Your task to perform on an android device: See recent photos Image 0: 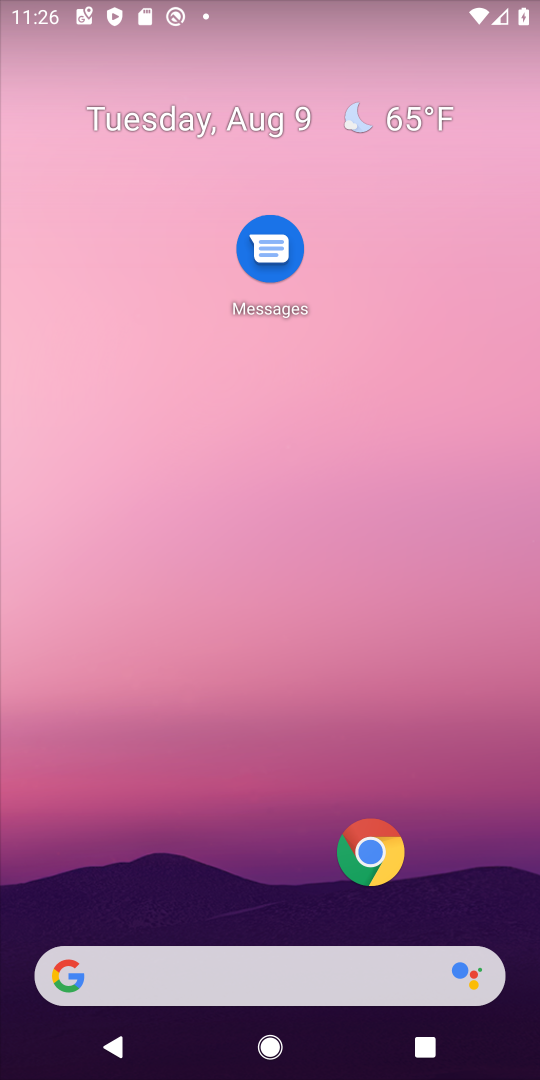
Step 0: drag from (153, 884) to (37, 208)
Your task to perform on an android device: See recent photos Image 1: 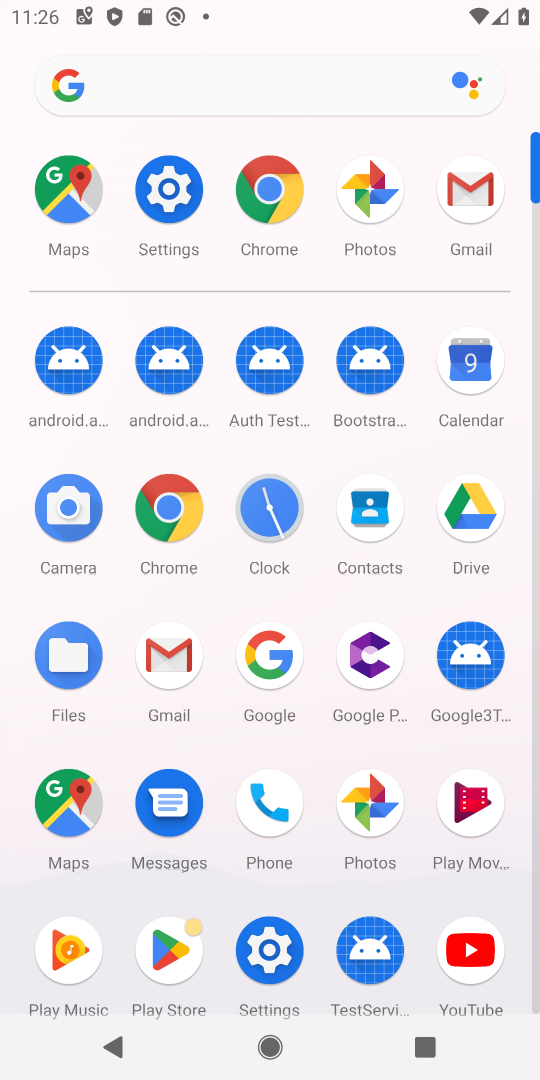
Step 1: click (382, 198)
Your task to perform on an android device: See recent photos Image 2: 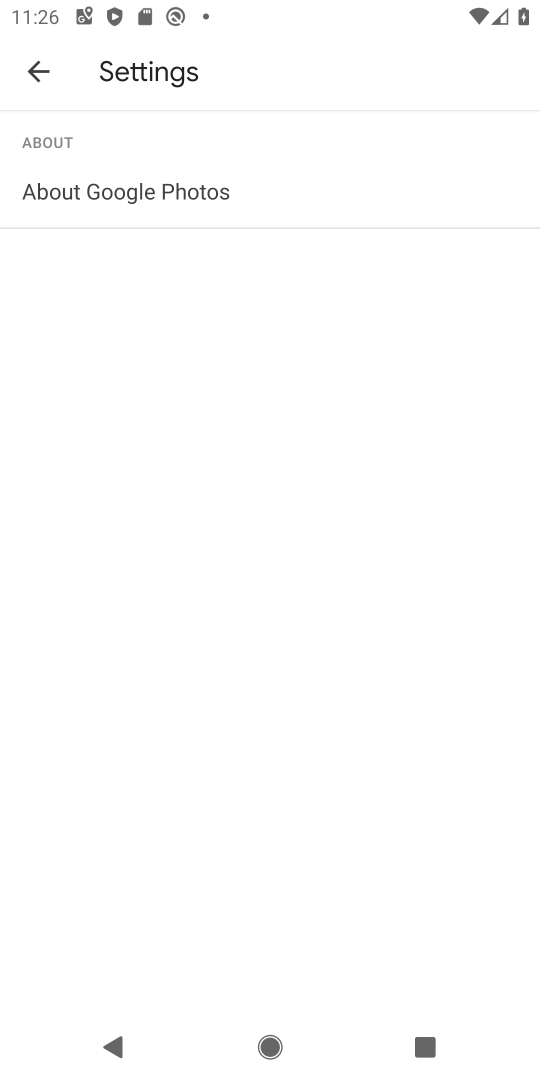
Step 2: click (56, 79)
Your task to perform on an android device: See recent photos Image 3: 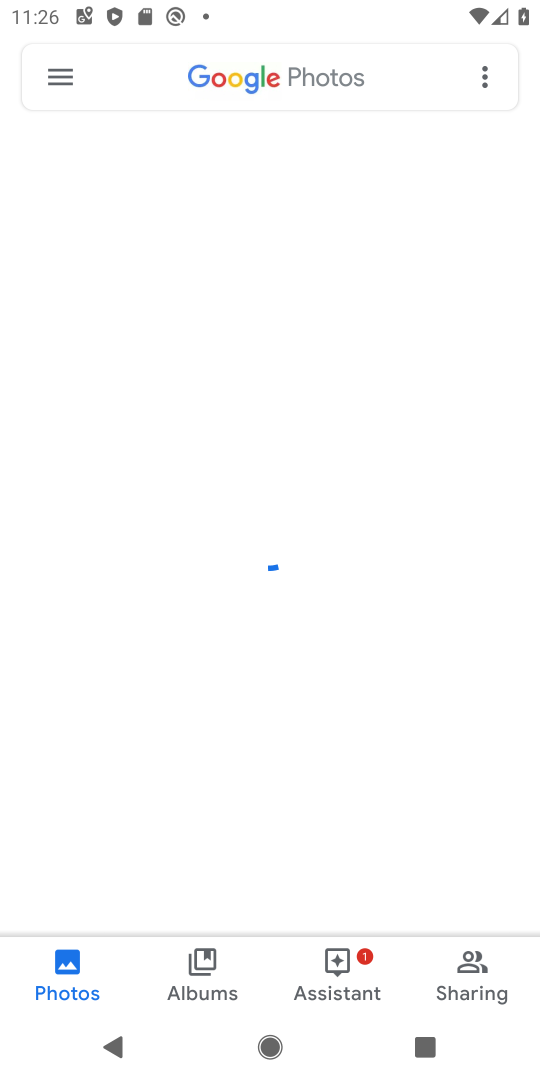
Step 3: click (38, 75)
Your task to perform on an android device: See recent photos Image 4: 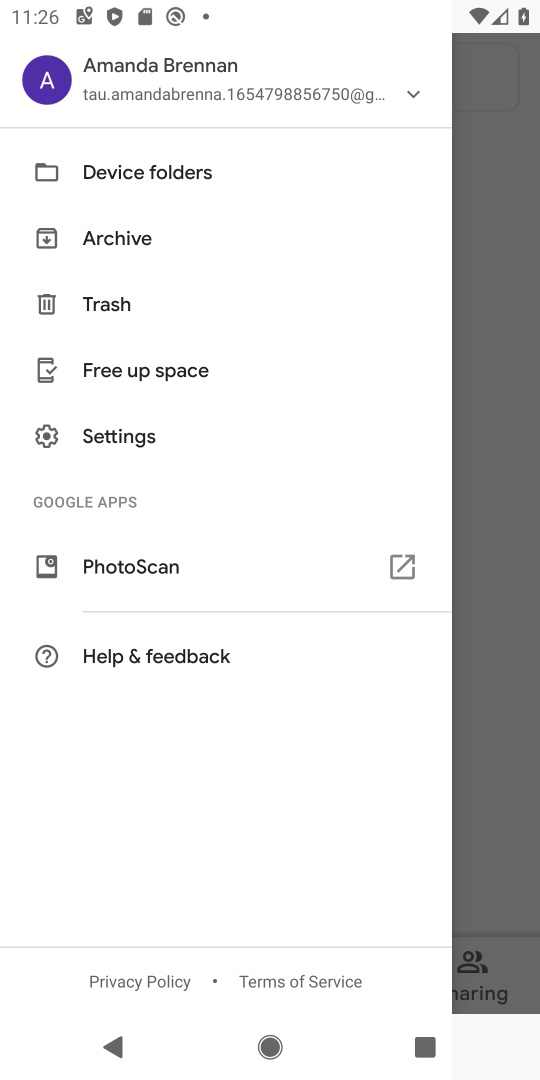
Step 4: click (38, 75)
Your task to perform on an android device: See recent photos Image 5: 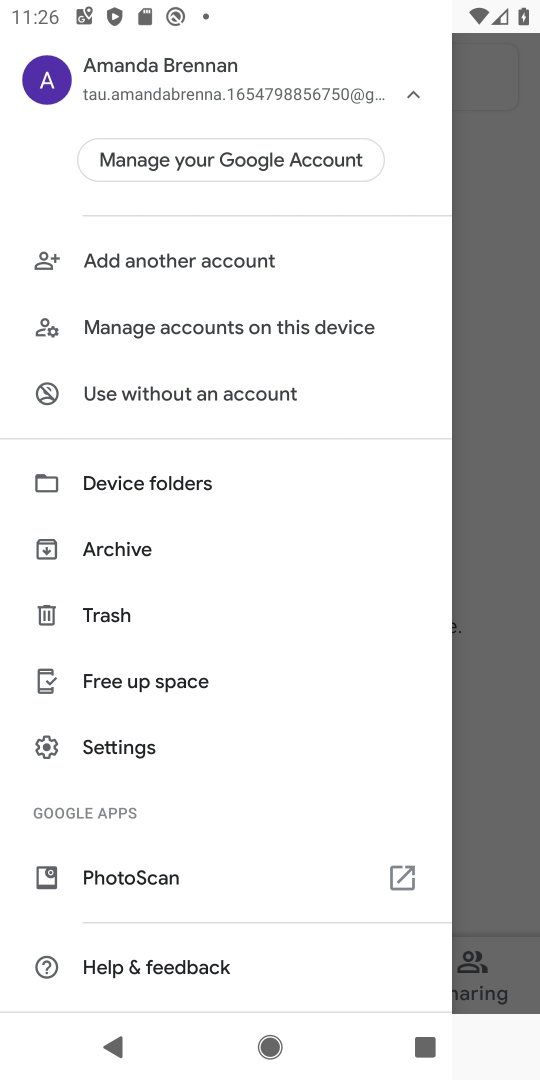
Step 5: click (465, 305)
Your task to perform on an android device: See recent photos Image 6: 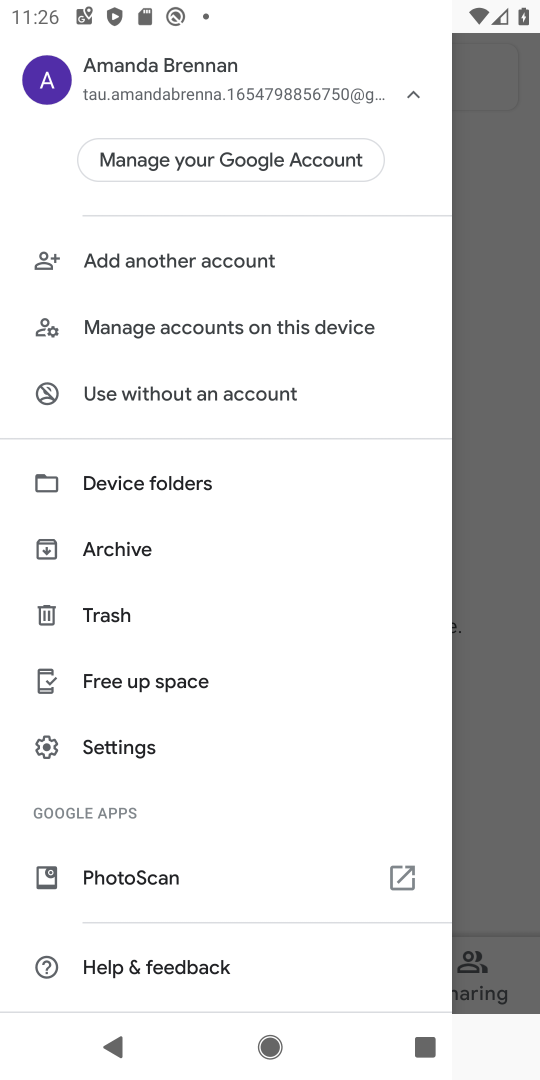
Step 6: click (465, 305)
Your task to perform on an android device: See recent photos Image 7: 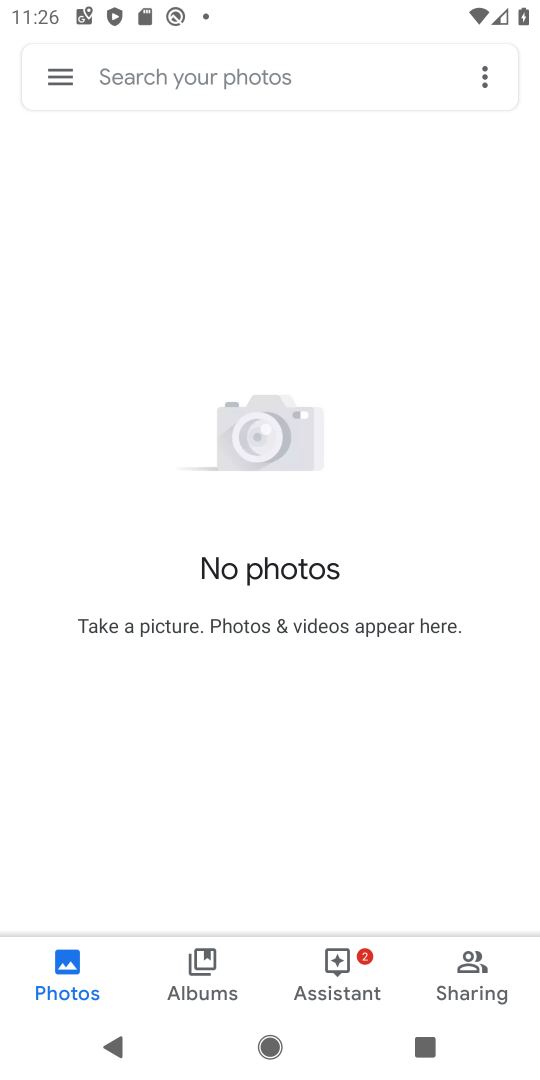
Step 7: click (465, 305)
Your task to perform on an android device: See recent photos Image 8: 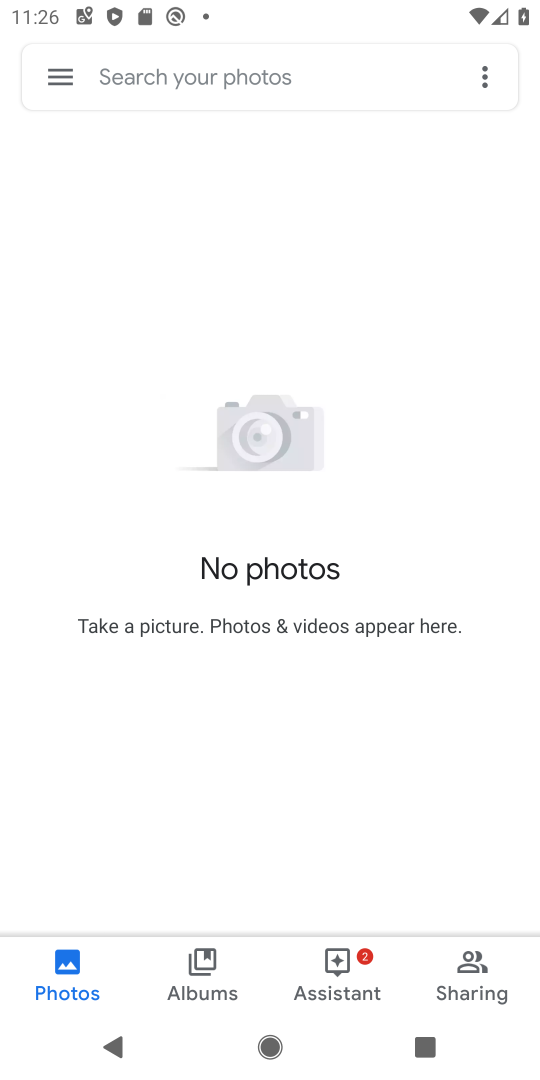
Step 8: task complete